Your task to perform on an android device: What's on my calendar tomorrow? Image 0: 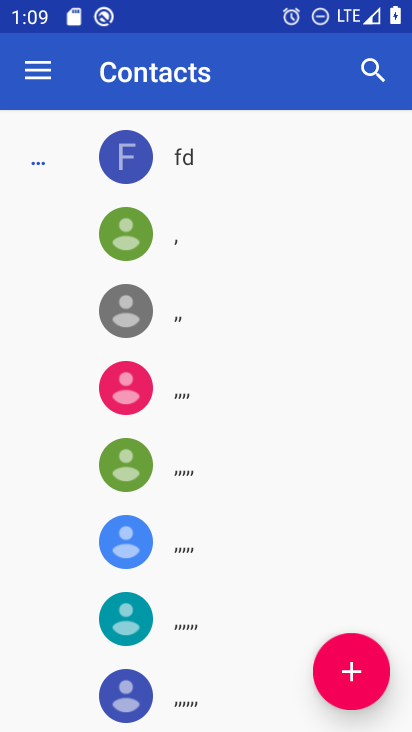
Step 0: press home button
Your task to perform on an android device: What's on my calendar tomorrow? Image 1: 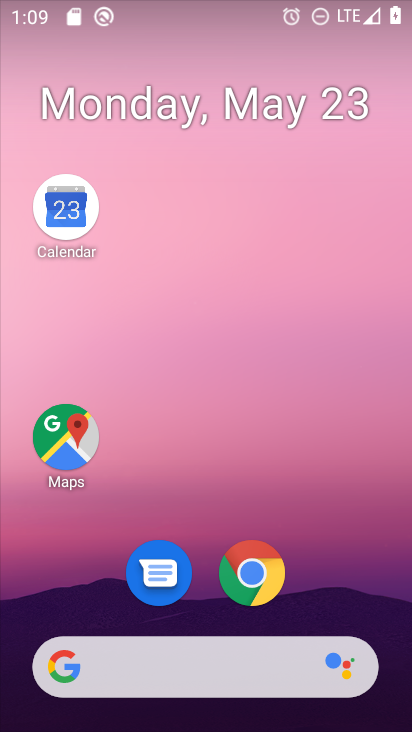
Step 1: drag from (212, 591) to (318, 79)
Your task to perform on an android device: What's on my calendar tomorrow? Image 2: 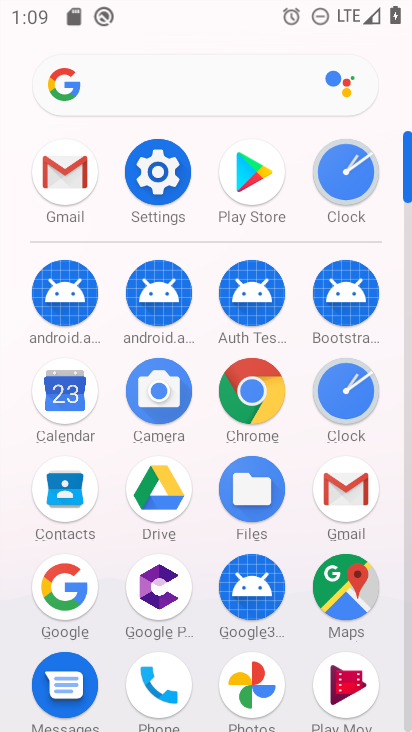
Step 2: click (63, 384)
Your task to perform on an android device: What's on my calendar tomorrow? Image 3: 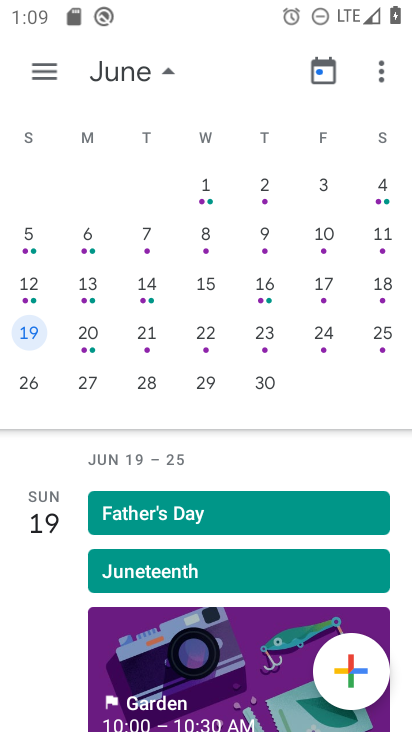
Step 3: drag from (104, 272) to (396, 293)
Your task to perform on an android device: What's on my calendar tomorrow? Image 4: 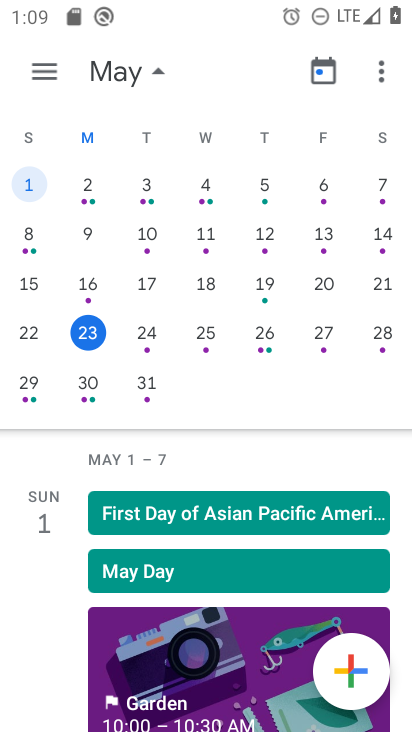
Step 4: click (131, 327)
Your task to perform on an android device: What's on my calendar tomorrow? Image 5: 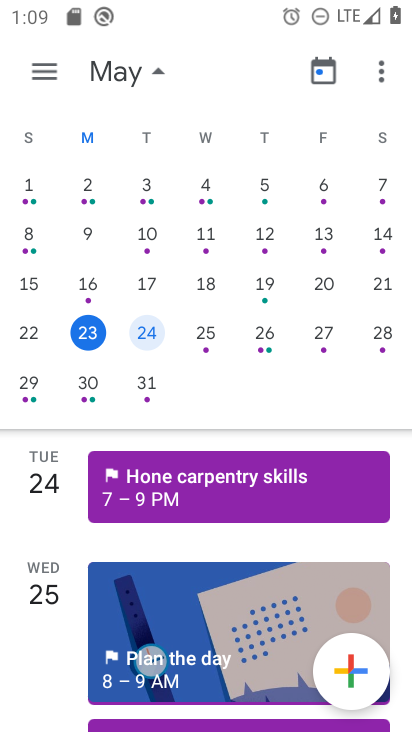
Step 5: press home button
Your task to perform on an android device: What's on my calendar tomorrow? Image 6: 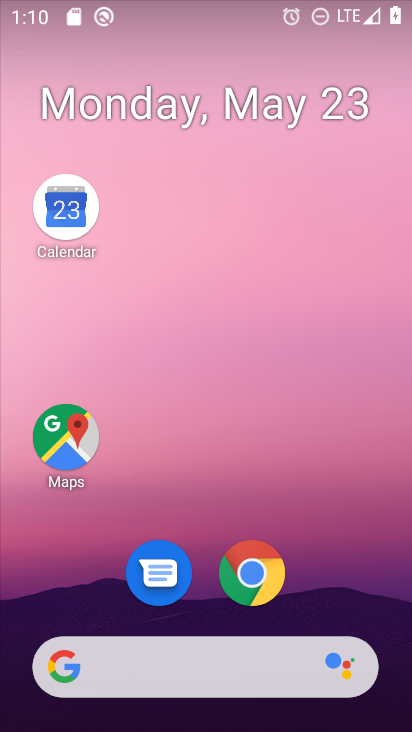
Step 6: drag from (350, 607) to (360, 160)
Your task to perform on an android device: What's on my calendar tomorrow? Image 7: 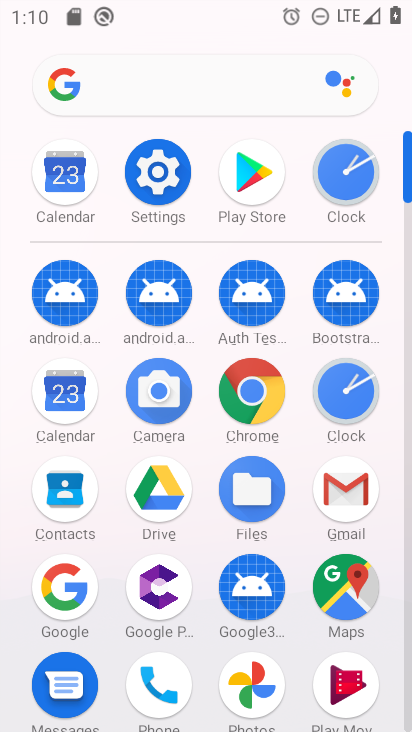
Step 7: click (52, 391)
Your task to perform on an android device: What's on my calendar tomorrow? Image 8: 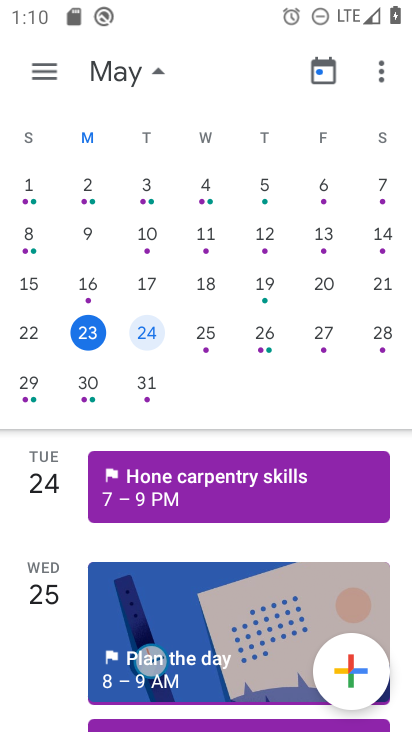
Step 8: click (148, 327)
Your task to perform on an android device: What's on my calendar tomorrow? Image 9: 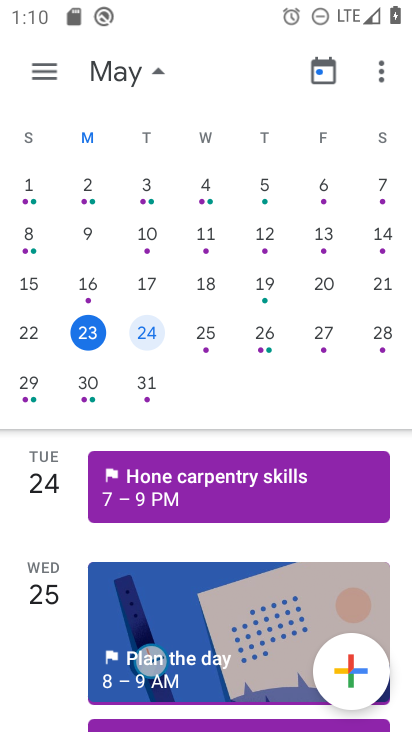
Step 9: task complete